Your task to perform on an android device: turn on wifi Image 0: 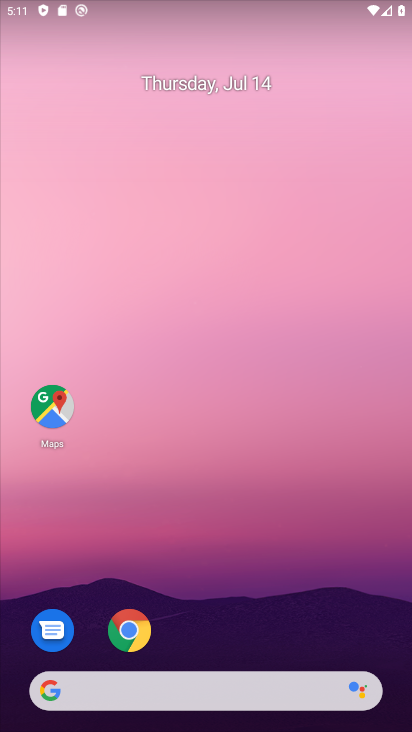
Step 0: drag from (211, 6) to (188, 545)
Your task to perform on an android device: turn on wifi Image 1: 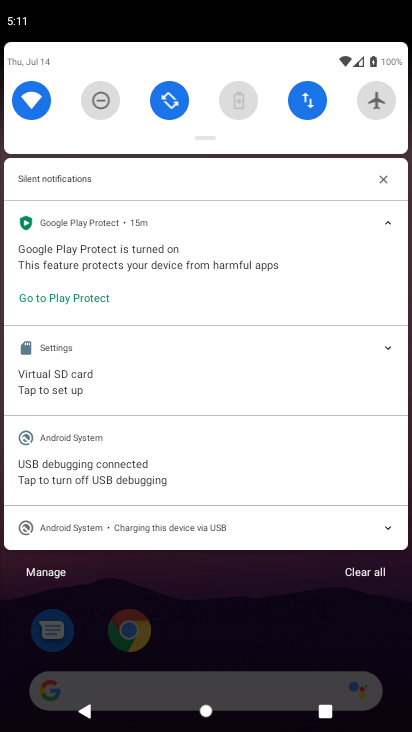
Step 1: task complete